Your task to perform on an android device: change notifications settings Image 0: 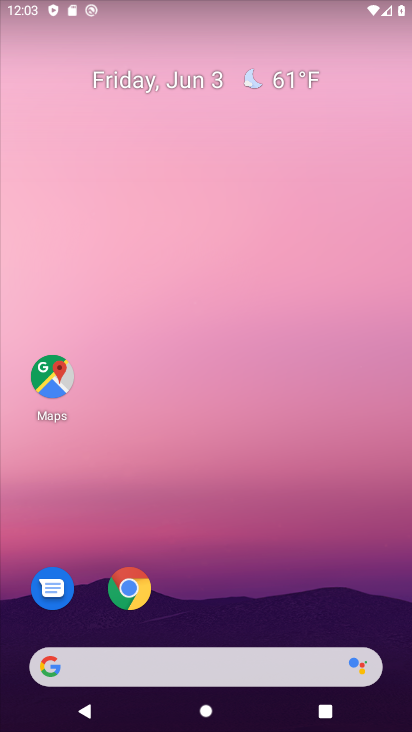
Step 0: drag from (182, 477) to (224, 79)
Your task to perform on an android device: change notifications settings Image 1: 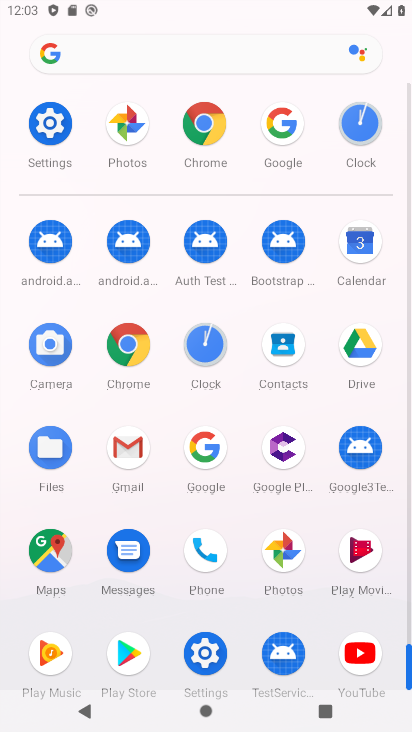
Step 1: click (211, 659)
Your task to perform on an android device: change notifications settings Image 2: 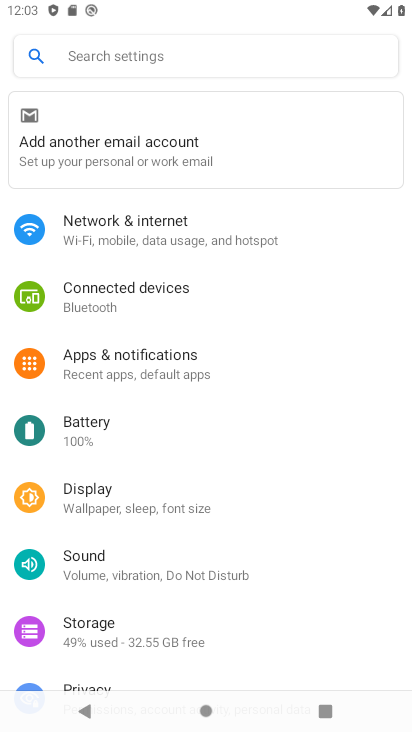
Step 2: click (185, 372)
Your task to perform on an android device: change notifications settings Image 3: 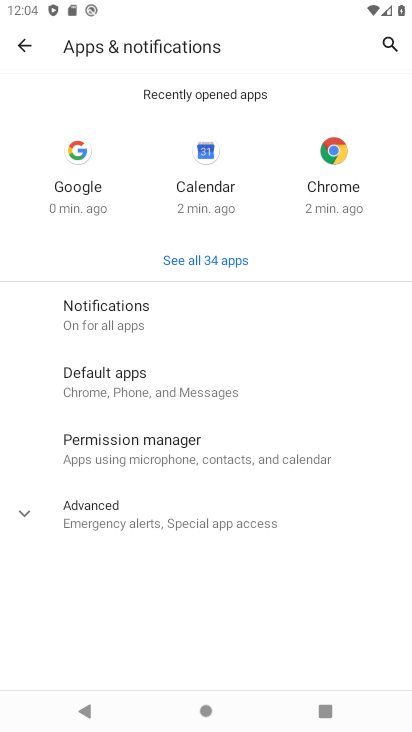
Step 3: click (182, 327)
Your task to perform on an android device: change notifications settings Image 4: 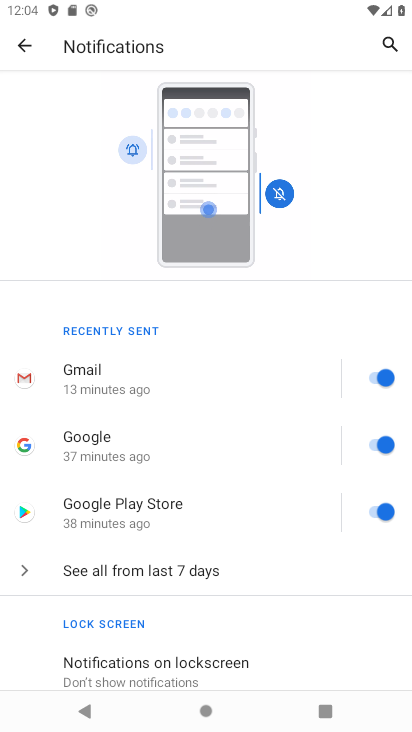
Step 4: click (385, 377)
Your task to perform on an android device: change notifications settings Image 5: 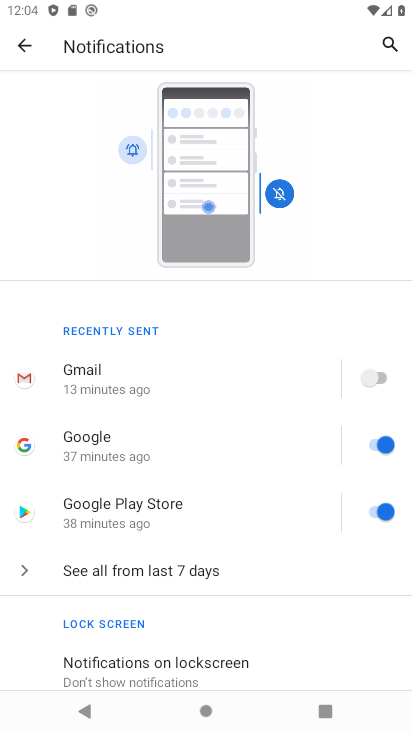
Step 5: task complete